Your task to perform on an android device: turn off notifications in google photos Image 0: 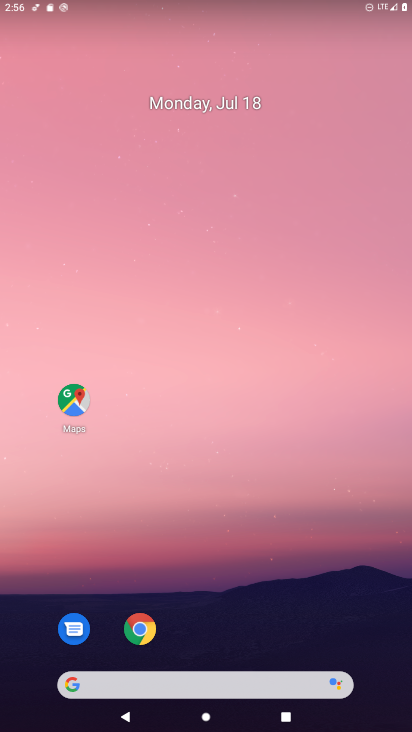
Step 0: drag from (197, 676) to (189, 282)
Your task to perform on an android device: turn off notifications in google photos Image 1: 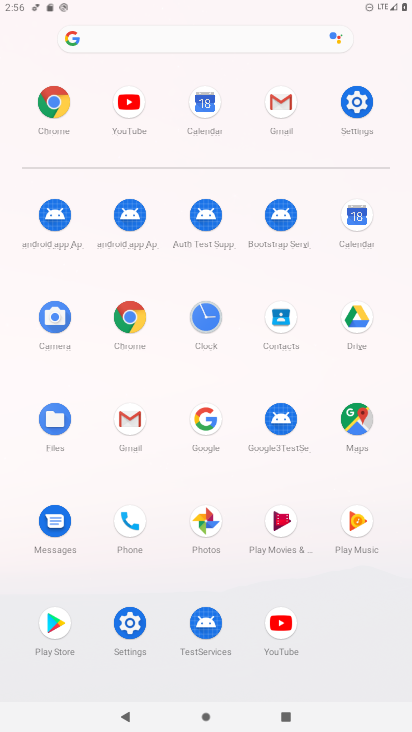
Step 1: click (271, 112)
Your task to perform on an android device: turn off notifications in google photos Image 2: 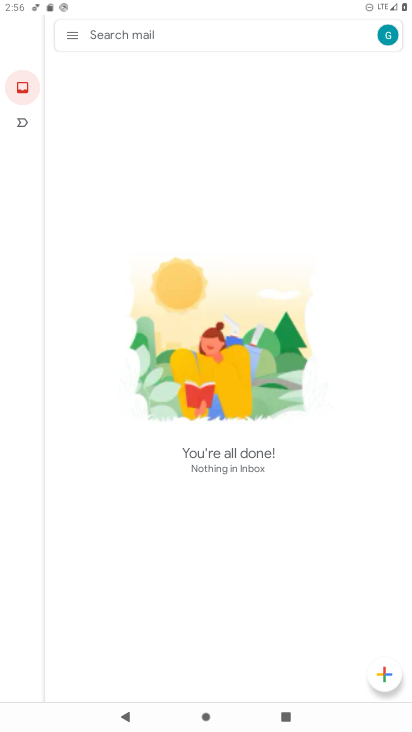
Step 2: click (77, 42)
Your task to perform on an android device: turn off notifications in google photos Image 3: 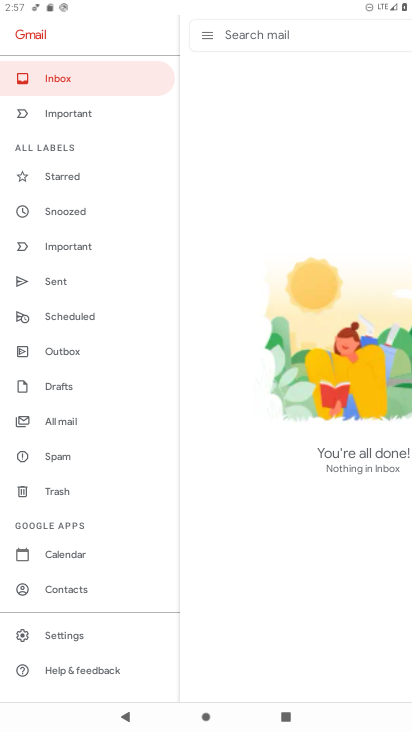
Step 3: click (39, 636)
Your task to perform on an android device: turn off notifications in google photos Image 4: 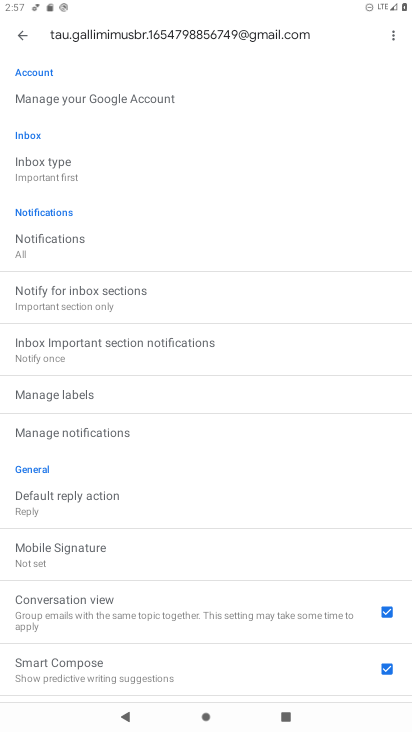
Step 4: click (52, 177)
Your task to perform on an android device: turn off notifications in google photos Image 5: 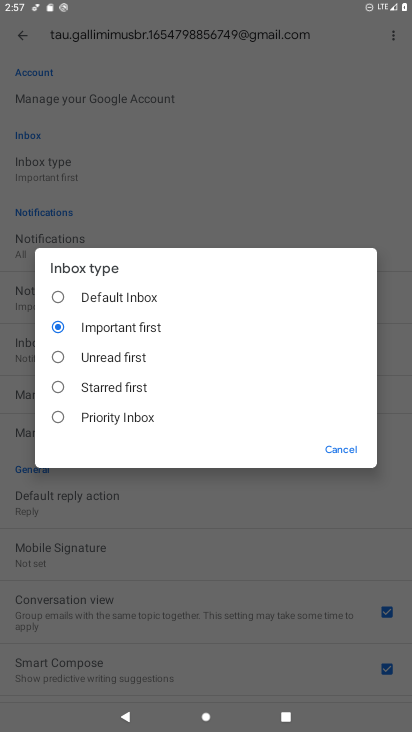
Step 5: click (146, 335)
Your task to perform on an android device: turn off notifications in google photos Image 6: 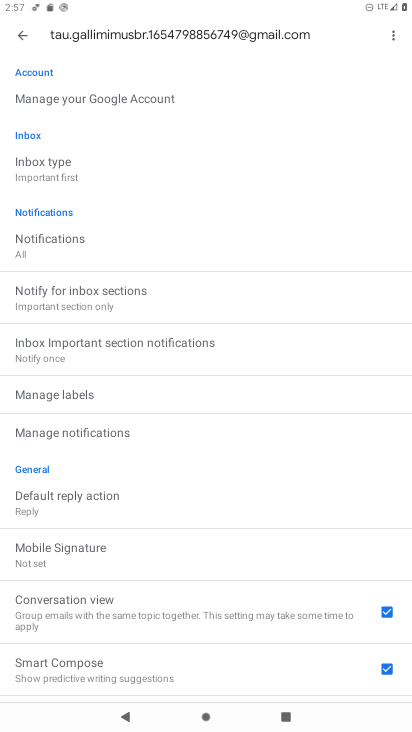
Step 6: click (38, 429)
Your task to perform on an android device: turn off notifications in google photos Image 7: 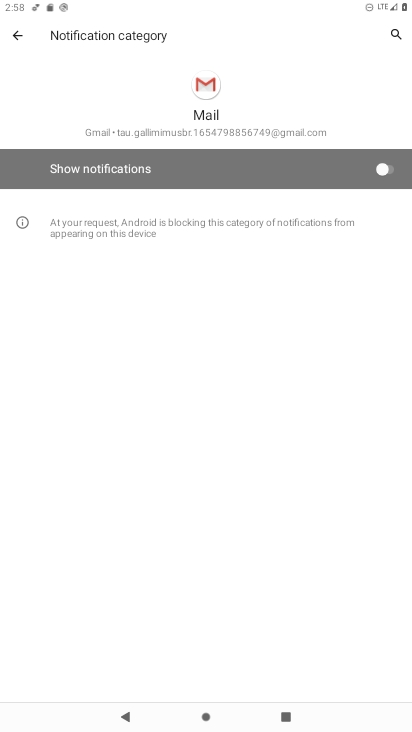
Step 7: task complete